Your task to perform on an android device: Show me popular games on the Play Store Image 0: 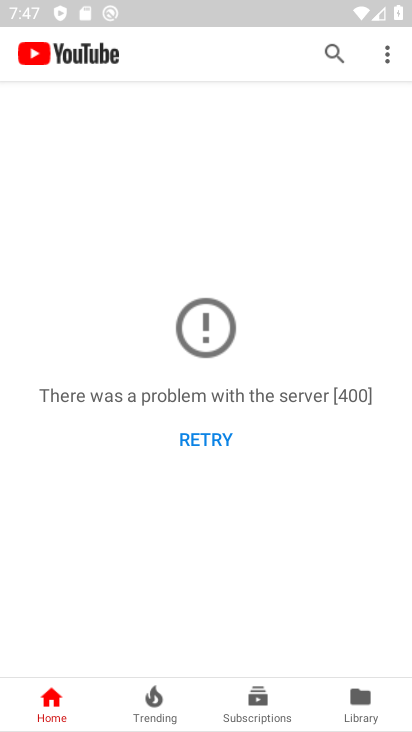
Step 0: press home button
Your task to perform on an android device: Show me popular games on the Play Store Image 1: 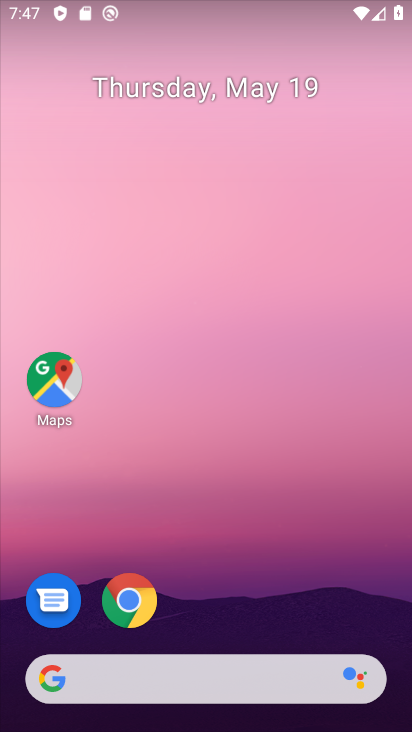
Step 1: drag from (368, 623) to (385, 241)
Your task to perform on an android device: Show me popular games on the Play Store Image 2: 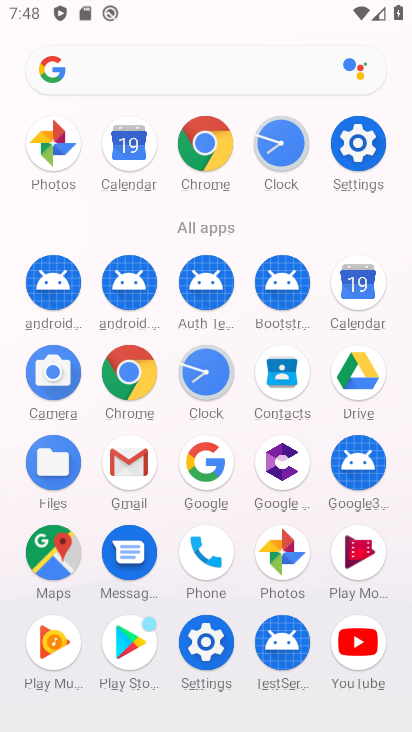
Step 2: click (141, 657)
Your task to perform on an android device: Show me popular games on the Play Store Image 3: 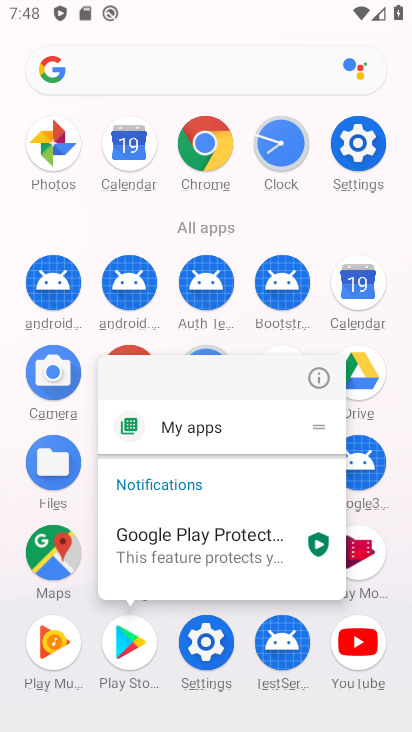
Step 3: click (141, 657)
Your task to perform on an android device: Show me popular games on the Play Store Image 4: 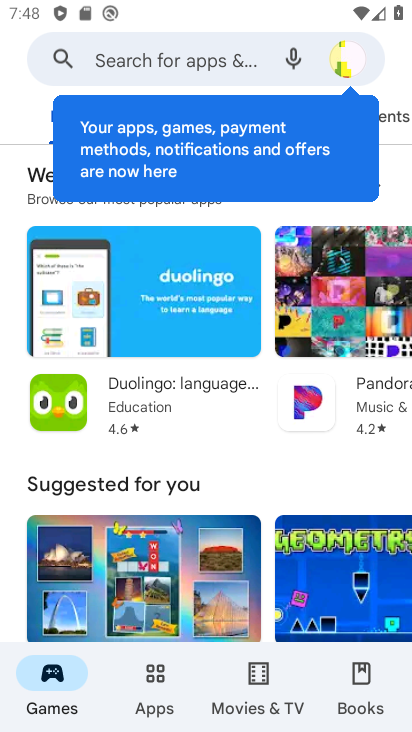
Step 4: task complete